Your task to perform on an android device: Search for "usb-b" on newegg.com, select the first entry, add it to the cart, then select checkout. Image 0: 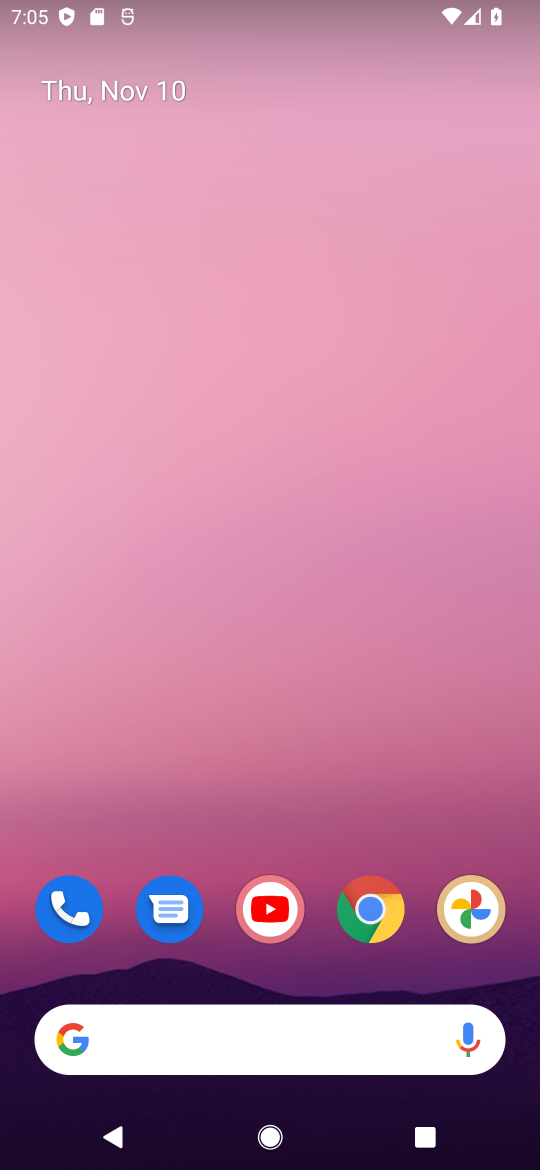
Step 0: drag from (256, 946) to (248, 444)
Your task to perform on an android device: Search for "usb-b" on newegg.com, select the first entry, add it to the cart, then select checkout. Image 1: 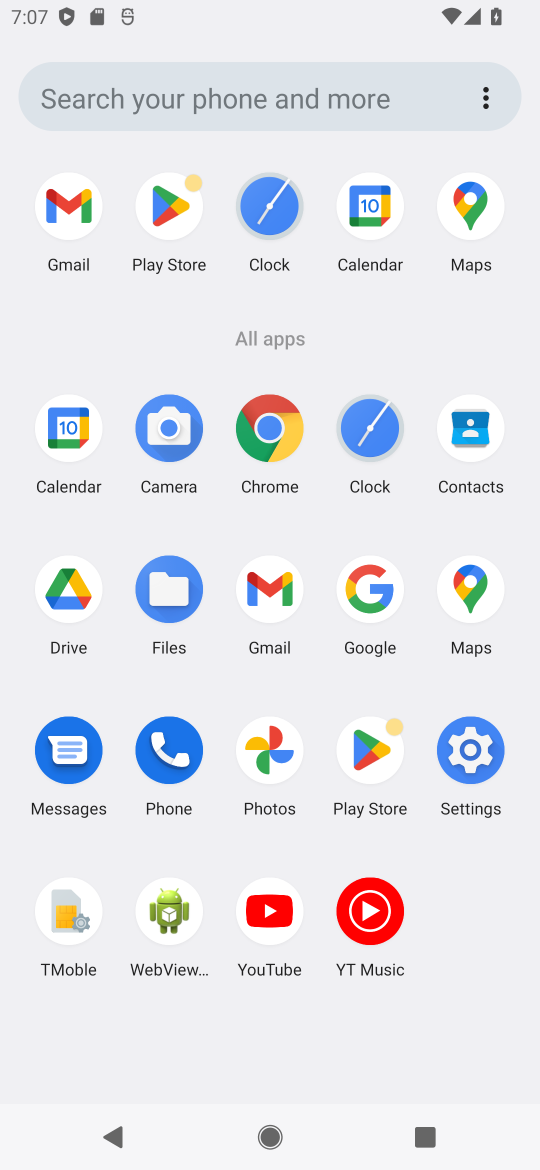
Step 1: click (361, 579)
Your task to perform on an android device: Search for "usb-b" on newegg.com, select the first entry, add it to the cart, then select checkout. Image 2: 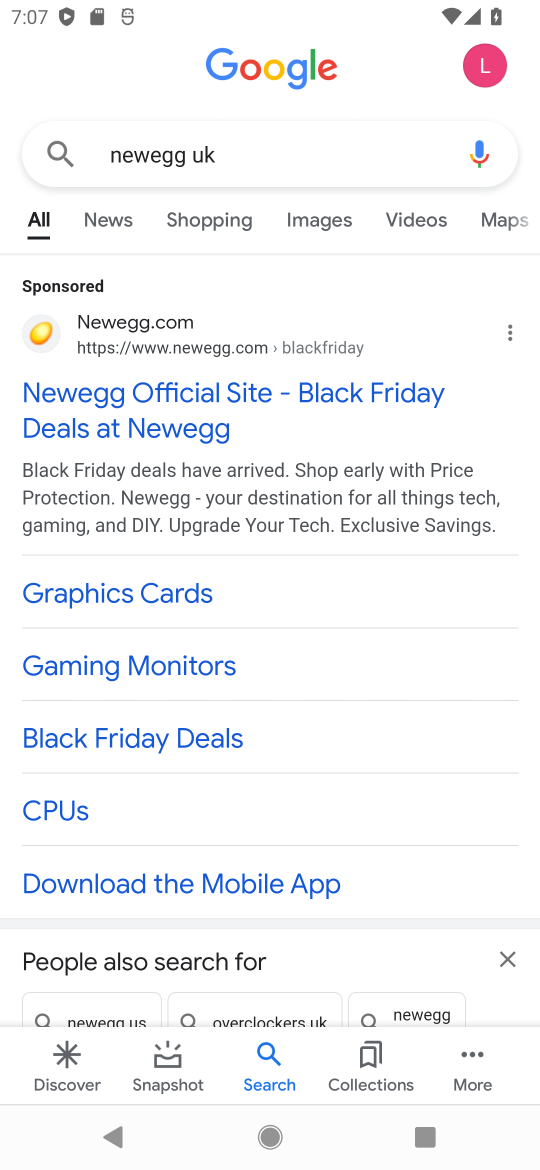
Step 2: click (23, 324)
Your task to perform on an android device: Search for "usb-b" on newegg.com, select the first entry, add it to the cart, then select checkout. Image 3: 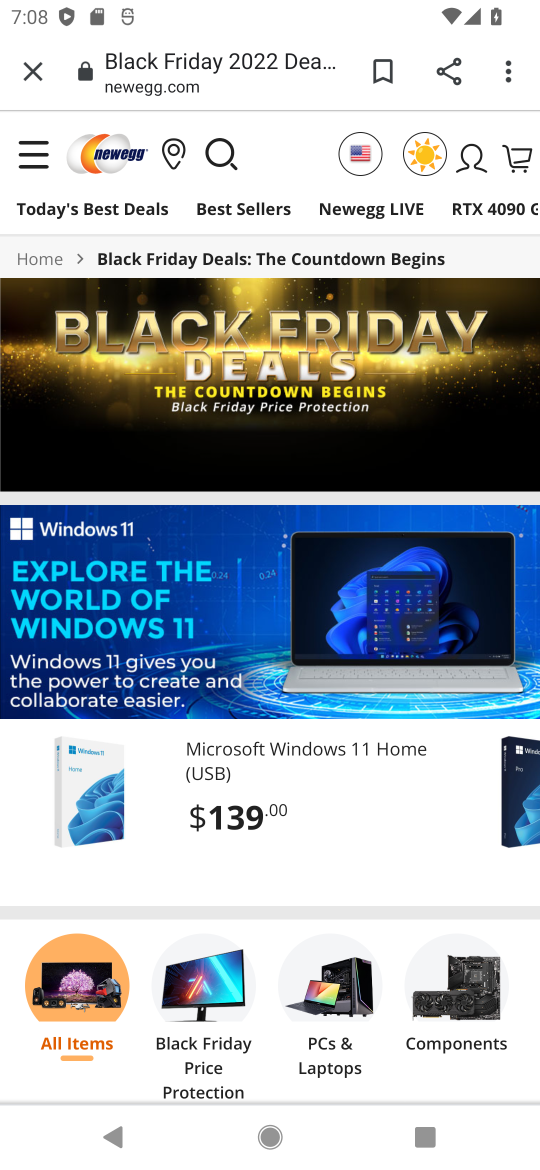
Step 3: click (206, 146)
Your task to perform on an android device: Search for "usb-b" on newegg.com, select the first entry, add it to the cart, then select checkout. Image 4: 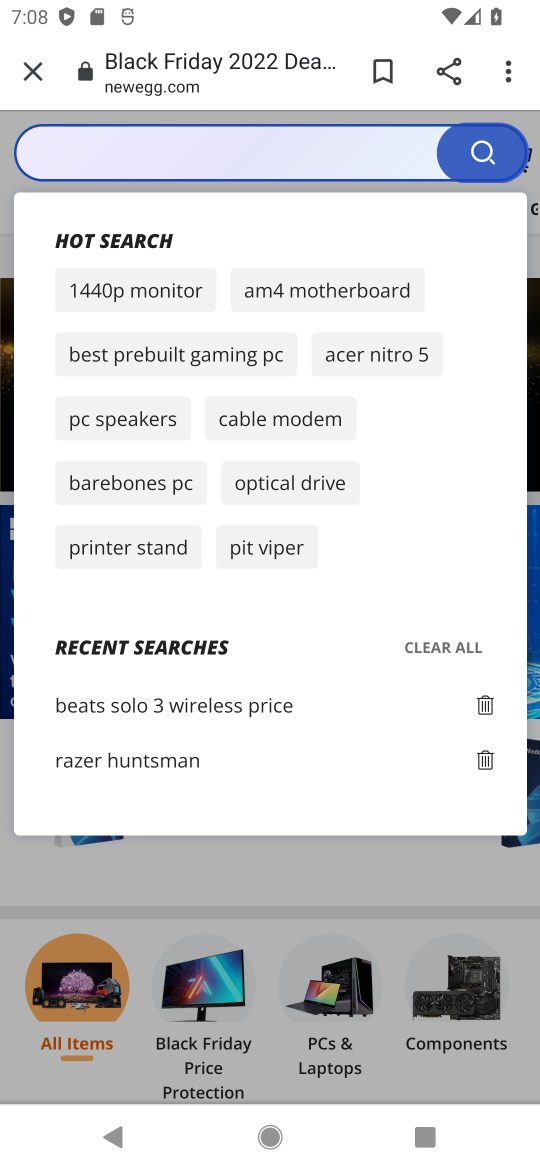
Step 4: click (197, 132)
Your task to perform on an android device: Search for "usb-b" on newegg.com, select the first entry, add it to the cart, then select checkout. Image 5: 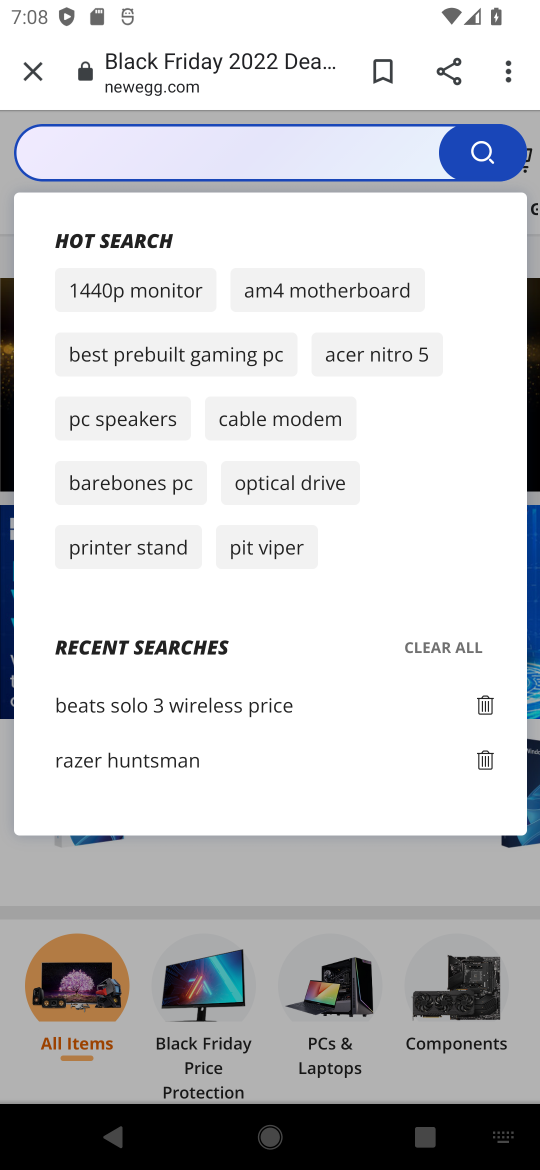
Step 5: type "usb "
Your task to perform on an android device: Search for "usb-b" on newegg.com, select the first entry, add it to the cart, then select checkout. Image 6: 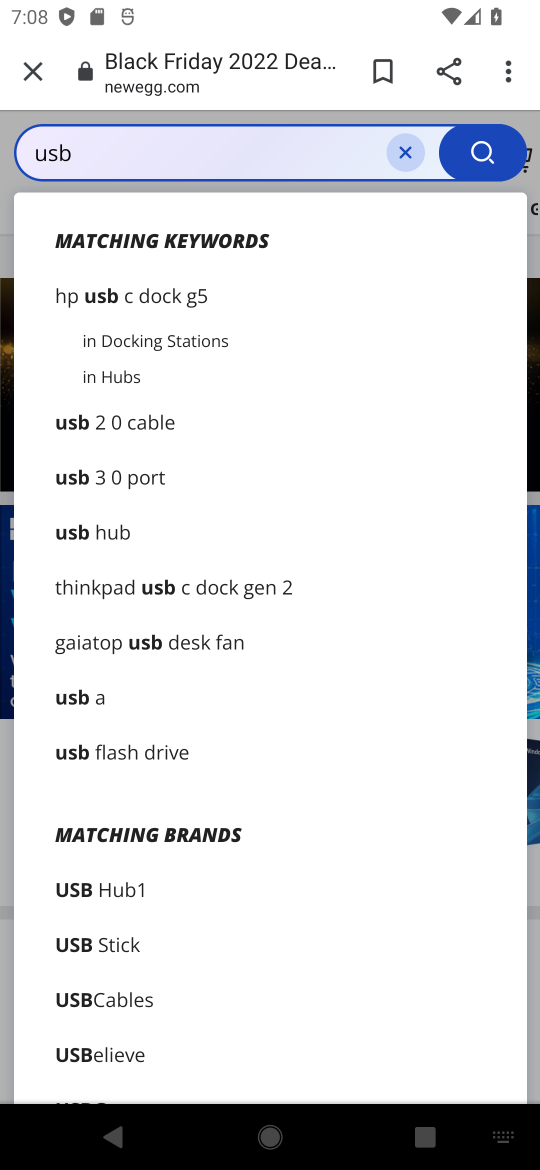
Step 6: click (93, 306)
Your task to perform on an android device: Search for "usb-b" on newegg.com, select the first entry, add it to the cart, then select checkout. Image 7: 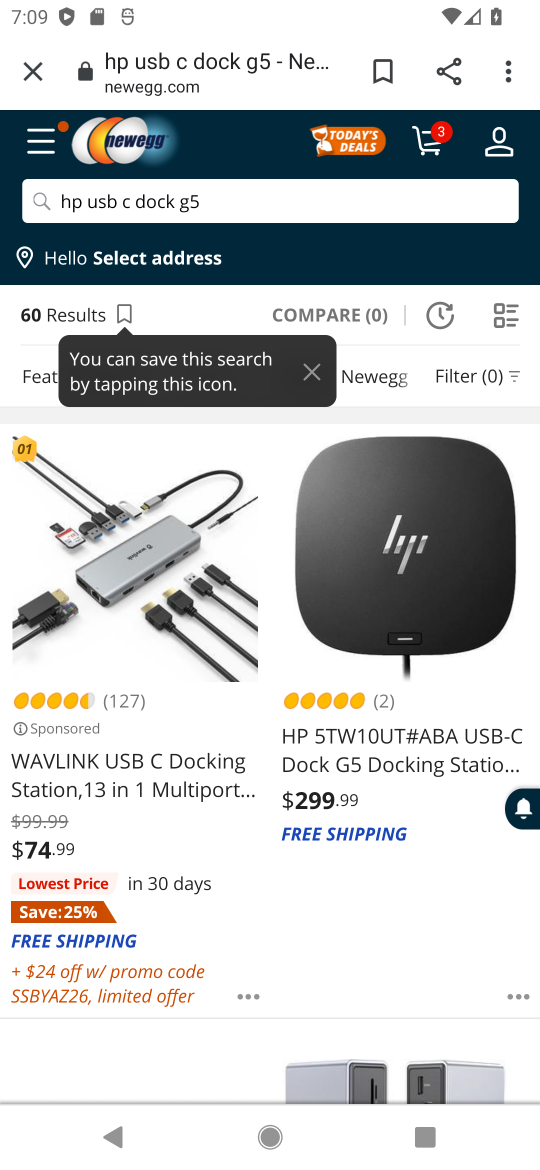
Step 7: drag from (158, 987) to (214, 420)
Your task to perform on an android device: Search for "usb-b" on newegg.com, select the first entry, add it to the cart, then select checkout. Image 8: 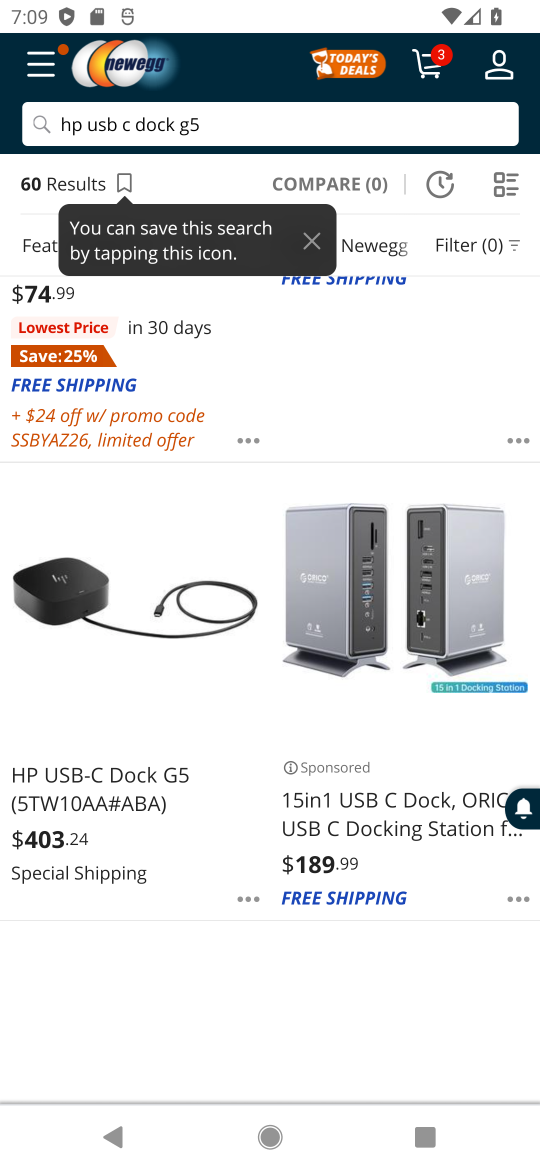
Step 8: drag from (189, 987) to (229, 648)
Your task to perform on an android device: Search for "usb-b" on newegg.com, select the first entry, add it to the cart, then select checkout. Image 9: 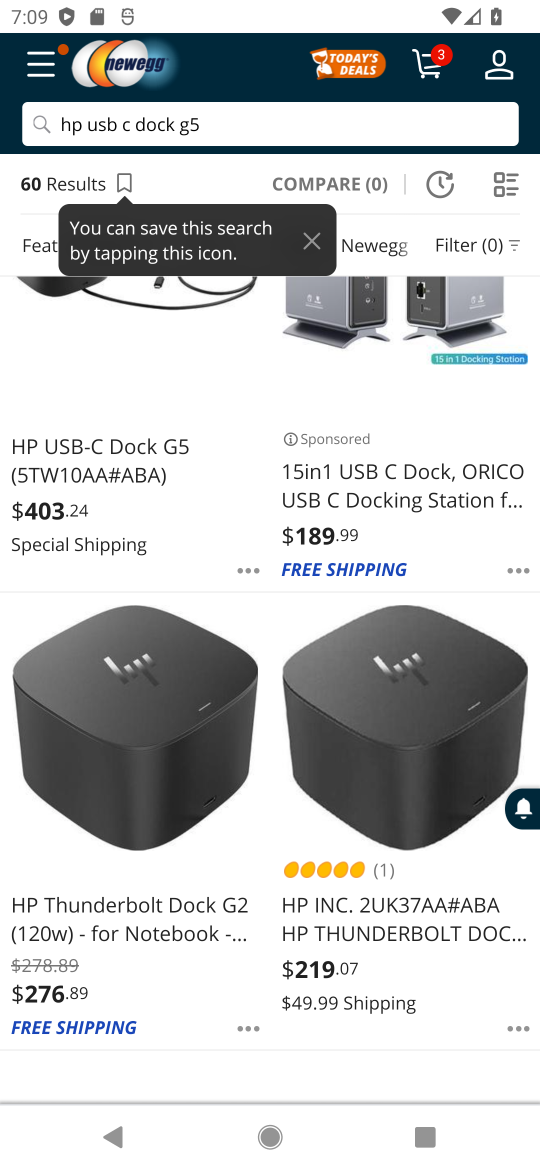
Step 9: drag from (193, 1024) to (336, 400)
Your task to perform on an android device: Search for "usb-b" on newegg.com, select the first entry, add it to the cart, then select checkout. Image 10: 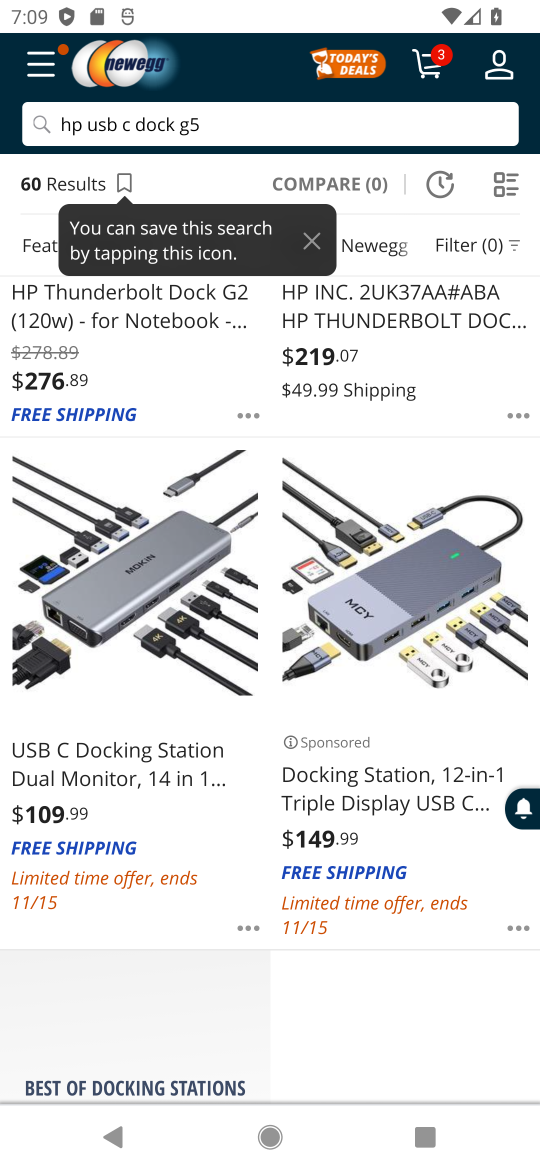
Step 10: drag from (295, 871) to (292, 640)
Your task to perform on an android device: Search for "usb-b" on newegg.com, select the first entry, add it to the cart, then select checkout. Image 11: 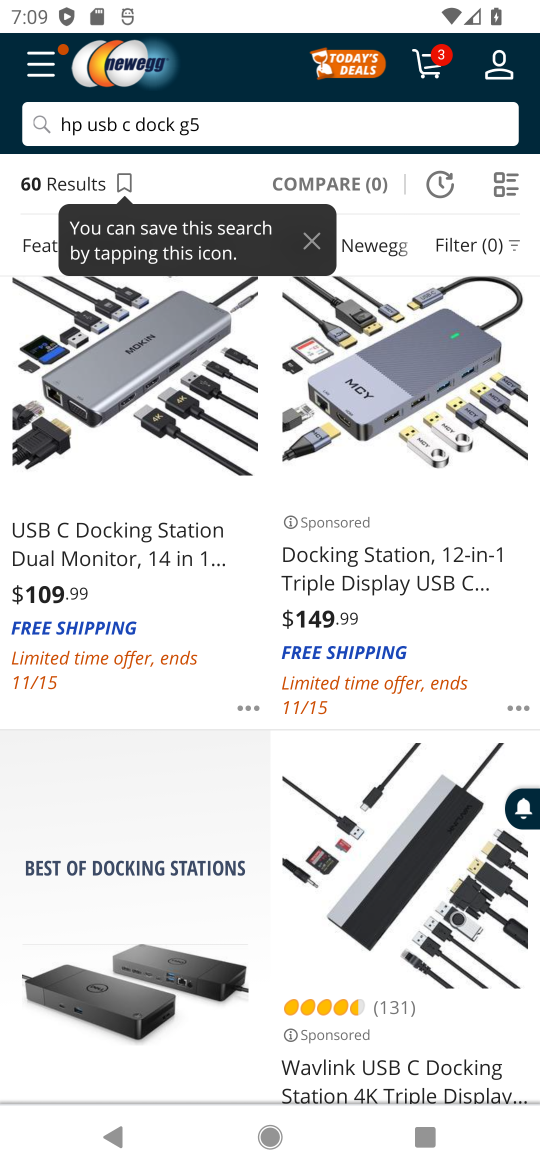
Step 11: drag from (253, 948) to (310, 438)
Your task to perform on an android device: Search for "usb-b" on newegg.com, select the first entry, add it to the cart, then select checkout. Image 12: 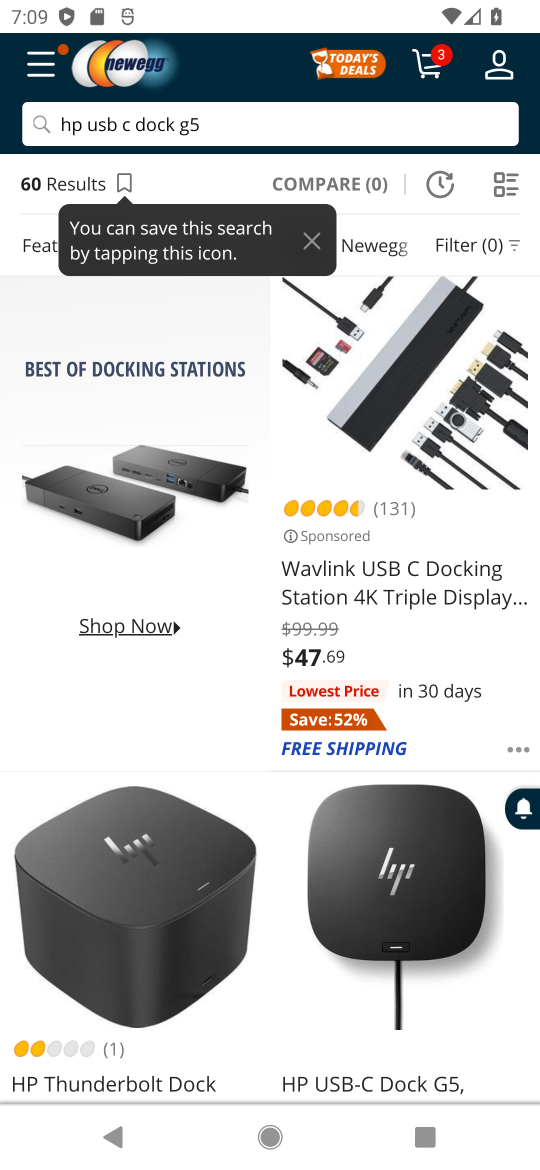
Step 12: drag from (193, 915) to (322, 398)
Your task to perform on an android device: Search for "usb-b" on newegg.com, select the first entry, add it to the cart, then select checkout. Image 13: 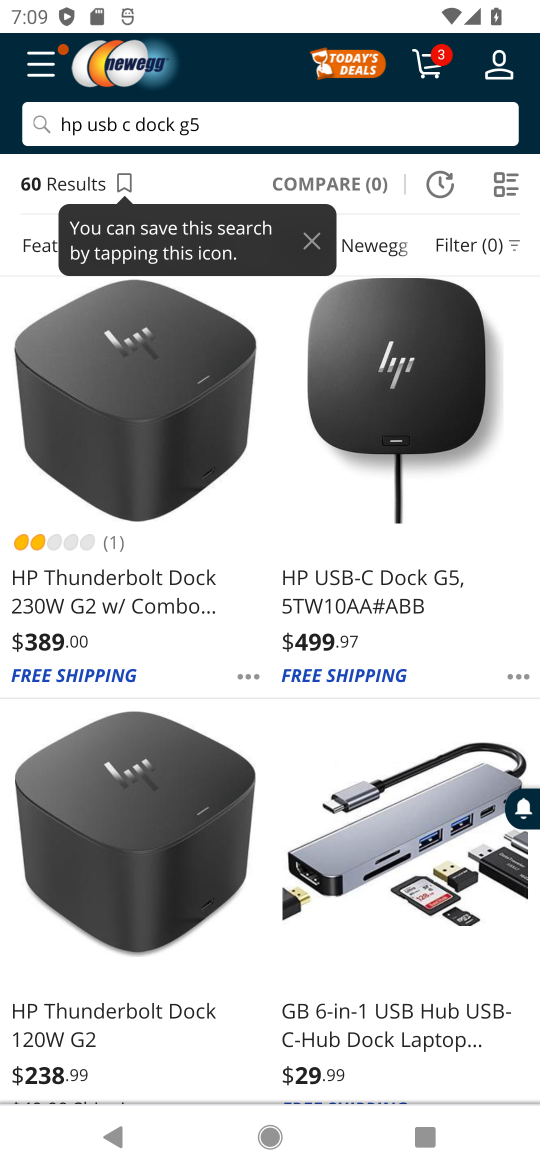
Step 13: click (296, 131)
Your task to perform on an android device: Search for "usb-b" on newegg.com, select the first entry, add it to the cart, then select checkout. Image 14: 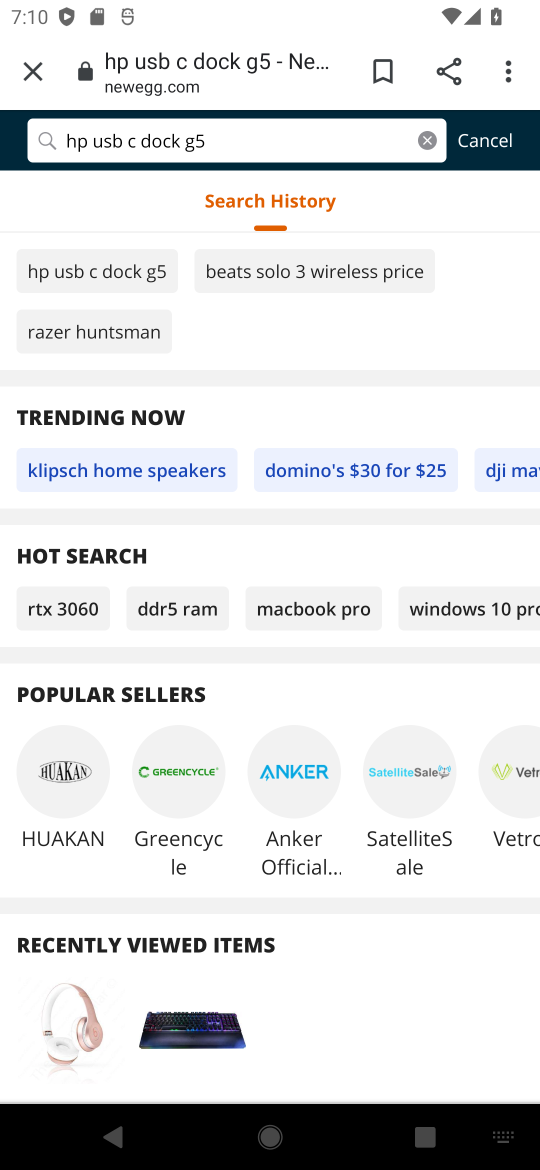
Step 14: click (429, 142)
Your task to perform on an android device: Search for "usb-b" on newegg.com, select the first entry, add it to the cart, then select checkout. Image 15: 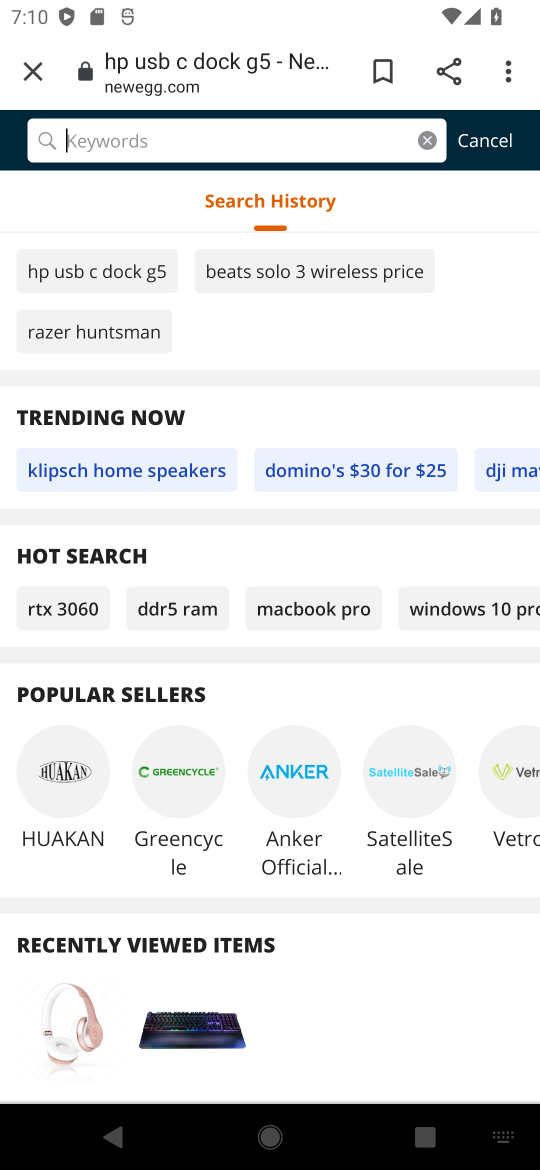
Step 15: click (261, 121)
Your task to perform on an android device: Search for "usb-b" on newegg.com, select the first entry, add it to the cart, then select checkout. Image 16: 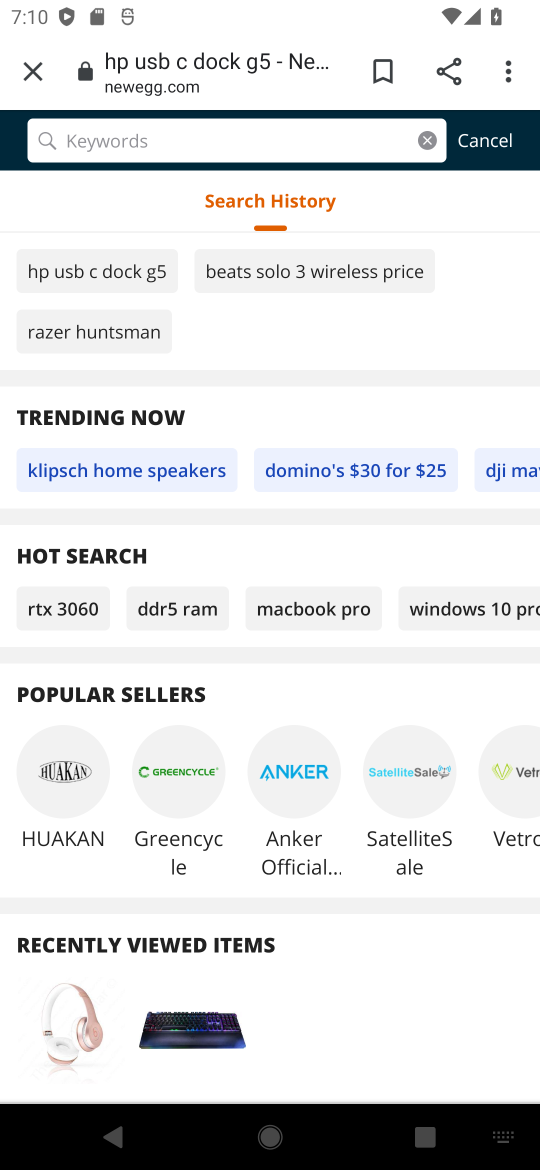
Step 16: click (261, 121)
Your task to perform on an android device: Search for "usb-b" on newegg.com, select the first entry, add it to the cart, then select checkout. Image 17: 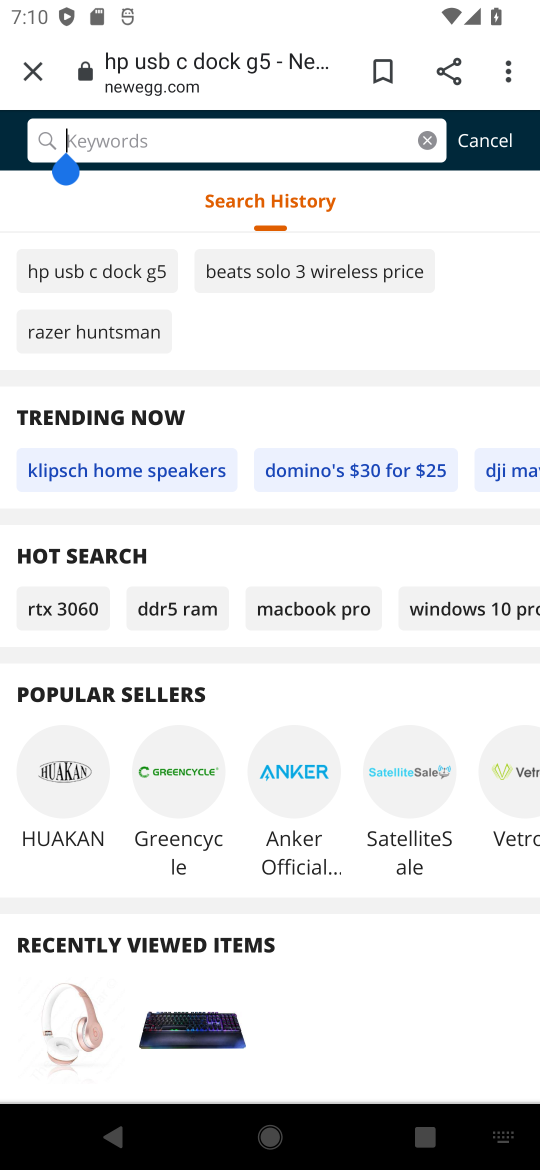
Step 17: type "usb-b "
Your task to perform on an android device: Search for "usb-b" on newegg.com, select the first entry, add it to the cart, then select checkout. Image 18: 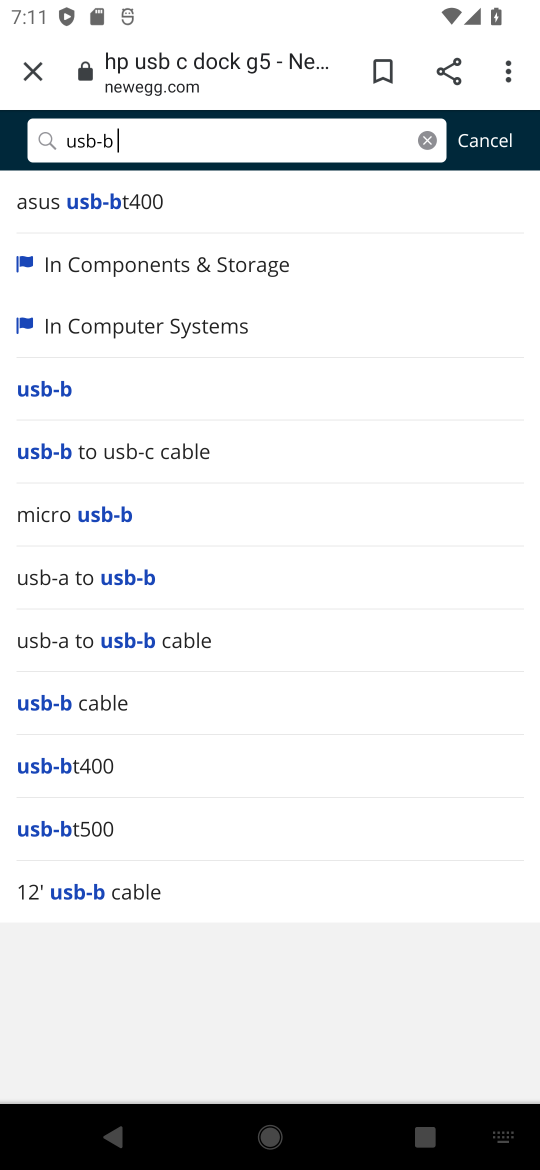
Step 18: click (95, 396)
Your task to perform on an android device: Search for "usb-b" on newegg.com, select the first entry, add it to the cart, then select checkout. Image 19: 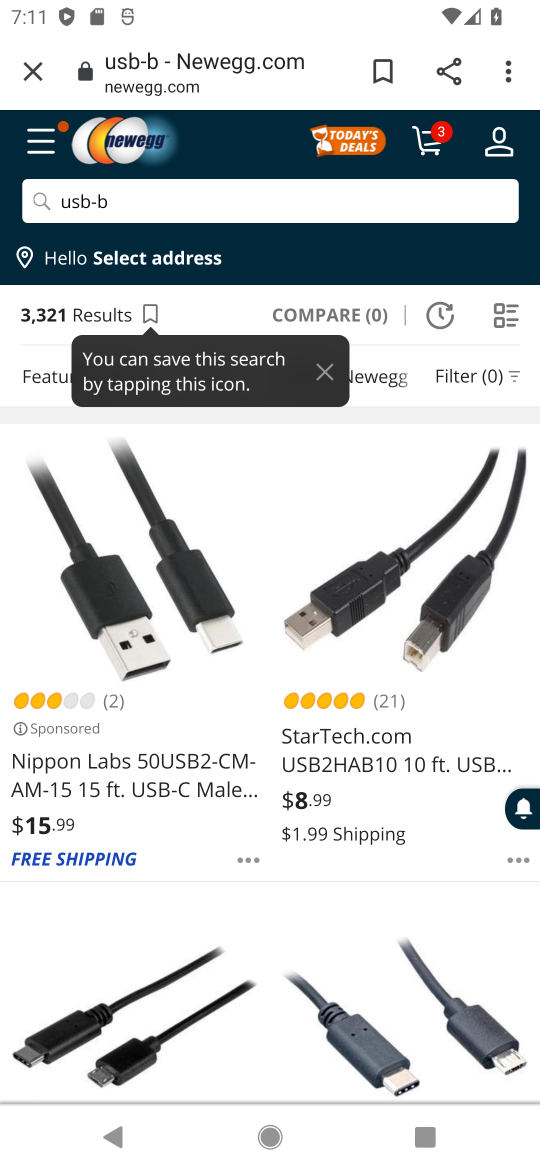
Step 19: click (89, 768)
Your task to perform on an android device: Search for "usb-b" on newegg.com, select the first entry, add it to the cart, then select checkout. Image 20: 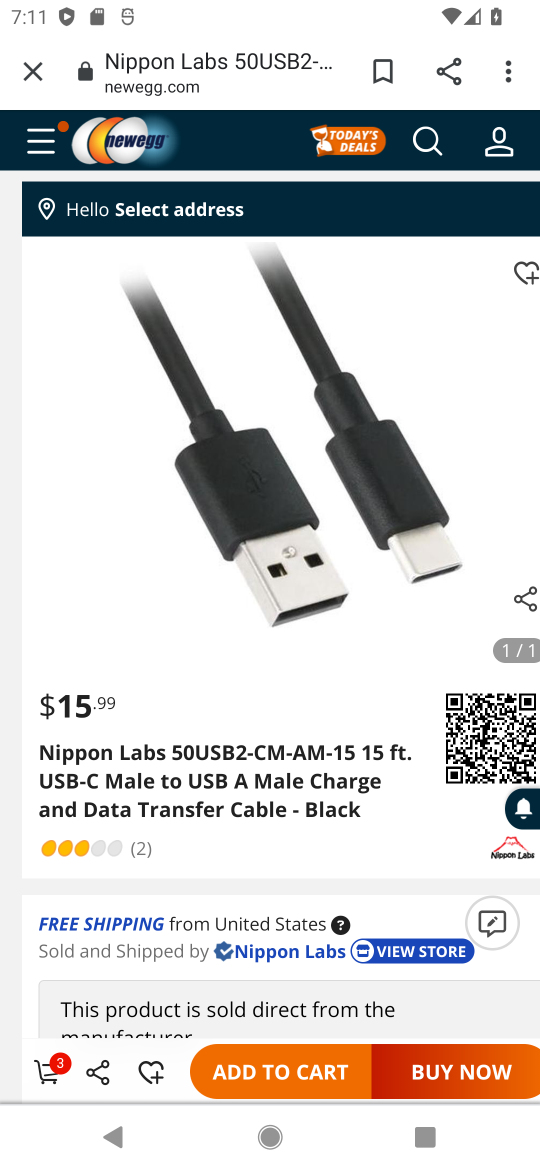
Step 20: click (243, 1065)
Your task to perform on an android device: Search for "usb-b" on newegg.com, select the first entry, add it to the cart, then select checkout. Image 21: 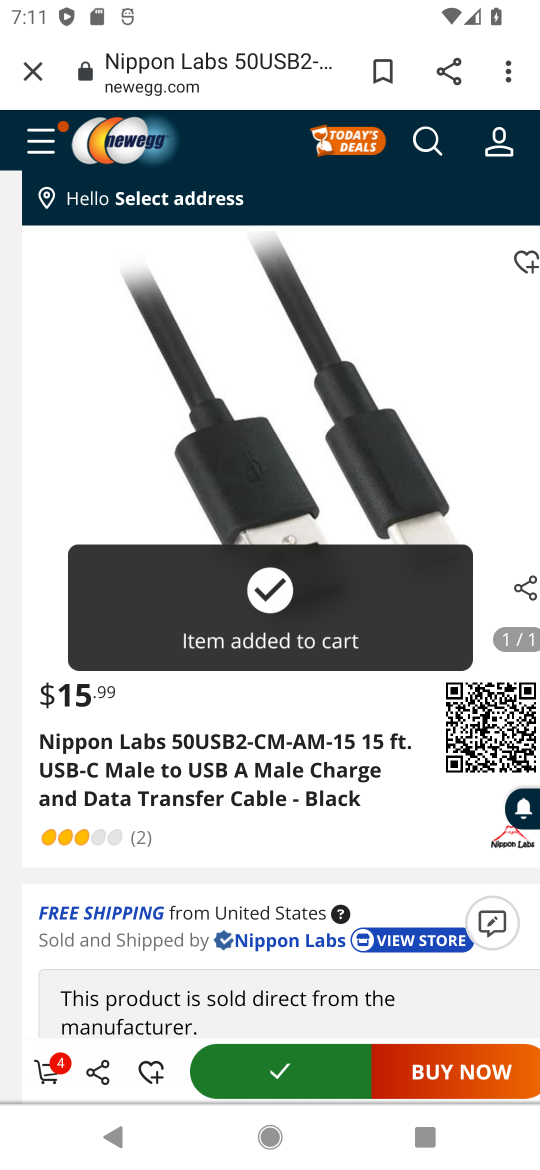
Step 21: task complete